Your task to perform on an android device: turn on bluetooth scan Image 0: 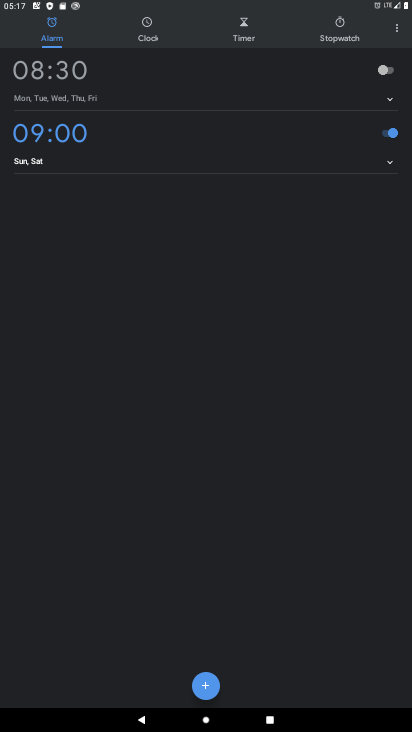
Step 0: press home button
Your task to perform on an android device: turn on bluetooth scan Image 1: 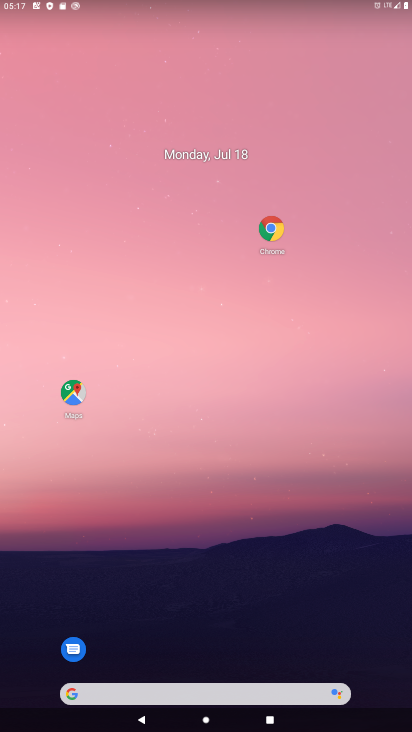
Step 1: drag from (222, 663) to (361, 114)
Your task to perform on an android device: turn on bluetooth scan Image 2: 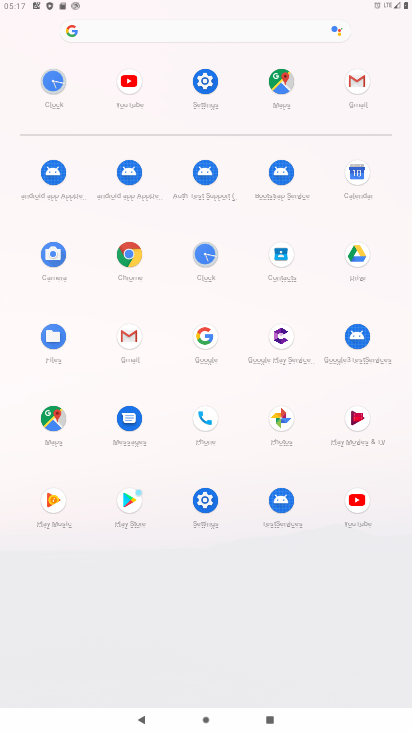
Step 2: click (210, 92)
Your task to perform on an android device: turn on bluetooth scan Image 3: 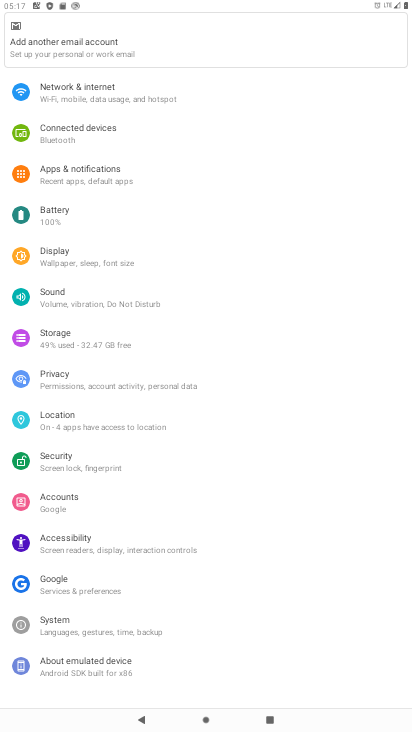
Step 3: click (119, 432)
Your task to perform on an android device: turn on bluetooth scan Image 4: 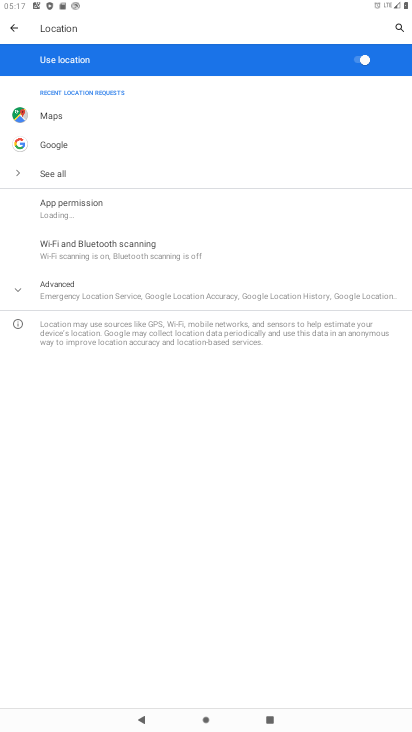
Step 4: click (167, 258)
Your task to perform on an android device: turn on bluetooth scan Image 5: 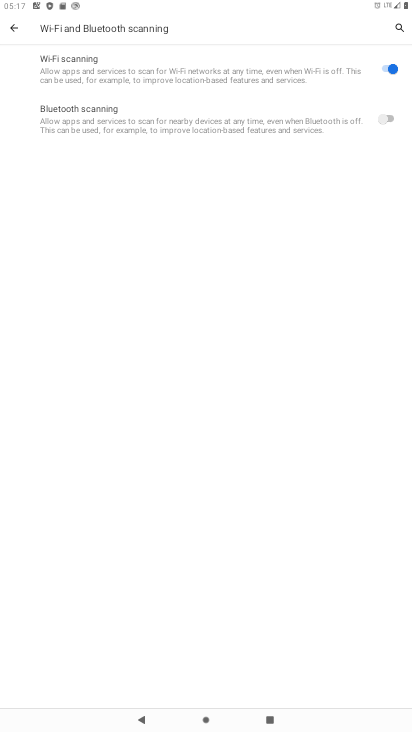
Step 5: click (389, 118)
Your task to perform on an android device: turn on bluetooth scan Image 6: 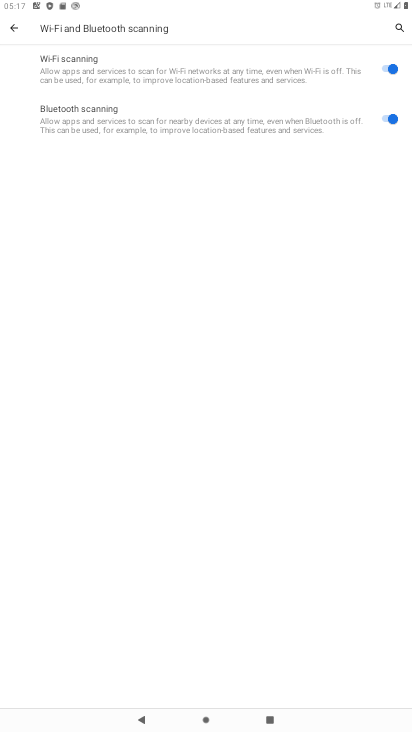
Step 6: task complete